Your task to perform on an android device: change the clock display to analog Image 0: 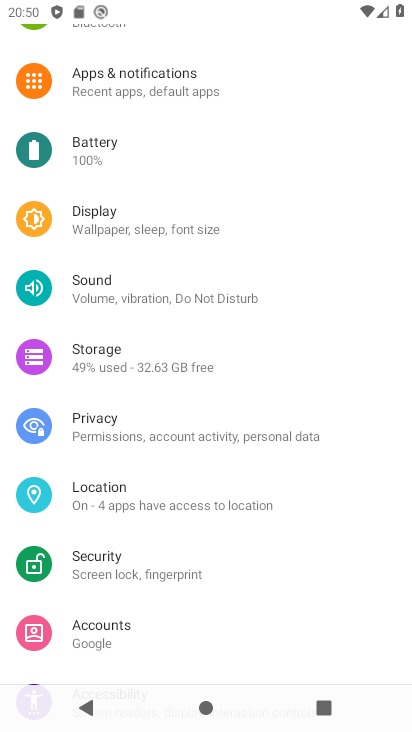
Step 0: press home button
Your task to perform on an android device: change the clock display to analog Image 1: 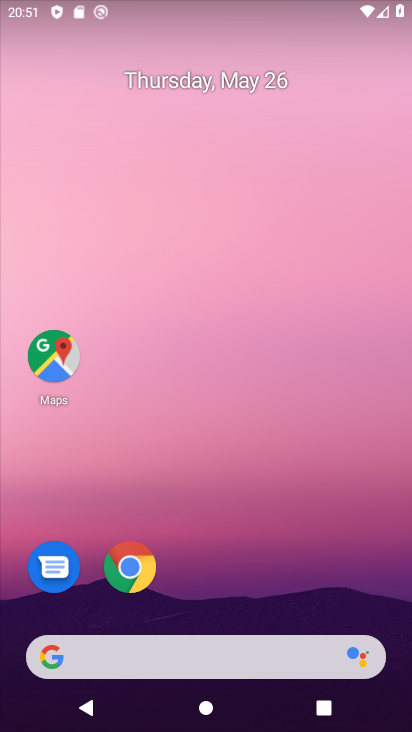
Step 1: drag from (241, 583) to (278, 272)
Your task to perform on an android device: change the clock display to analog Image 2: 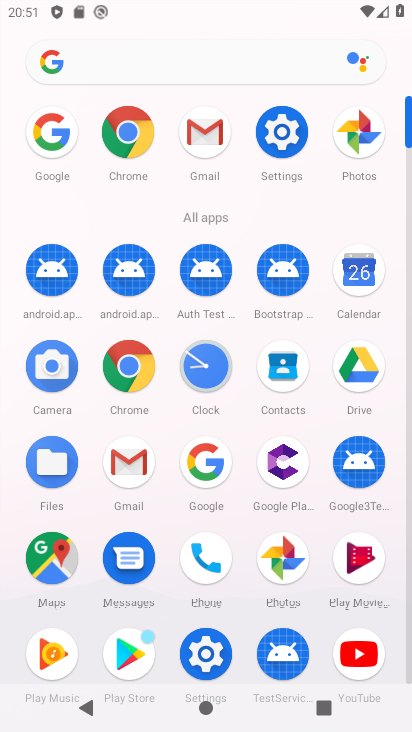
Step 2: click (214, 369)
Your task to perform on an android device: change the clock display to analog Image 3: 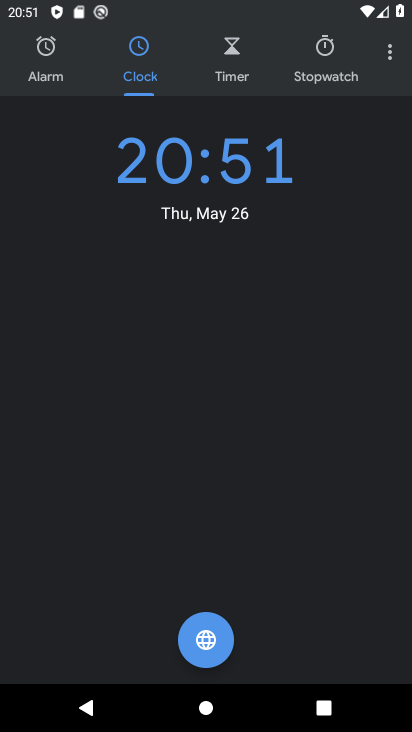
Step 3: click (386, 56)
Your task to perform on an android device: change the clock display to analog Image 4: 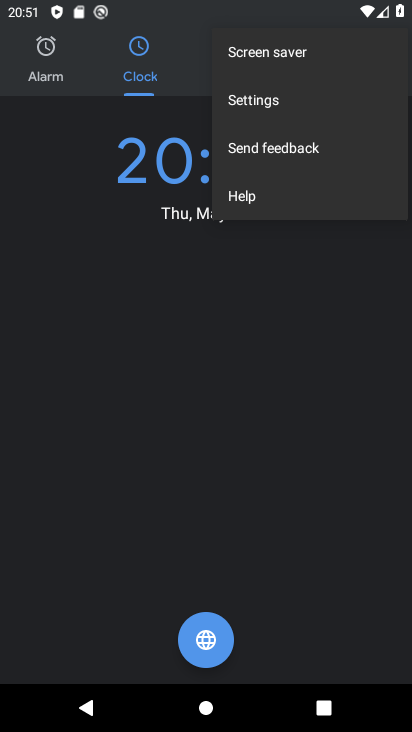
Step 4: click (263, 102)
Your task to perform on an android device: change the clock display to analog Image 5: 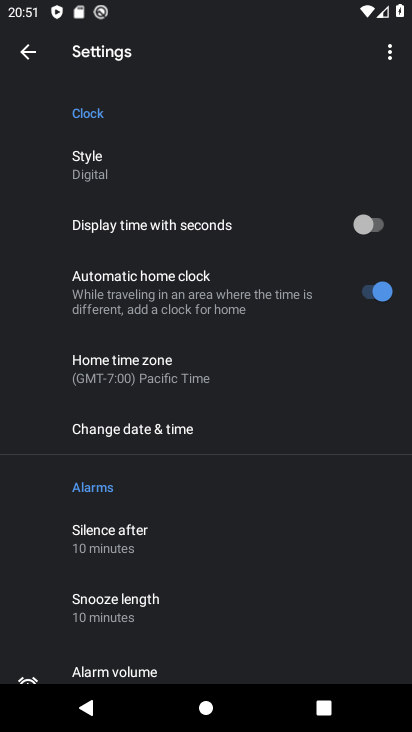
Step 5: click (119, 171)
Your task to perform on an android device: change the clock display to analog Image 6: 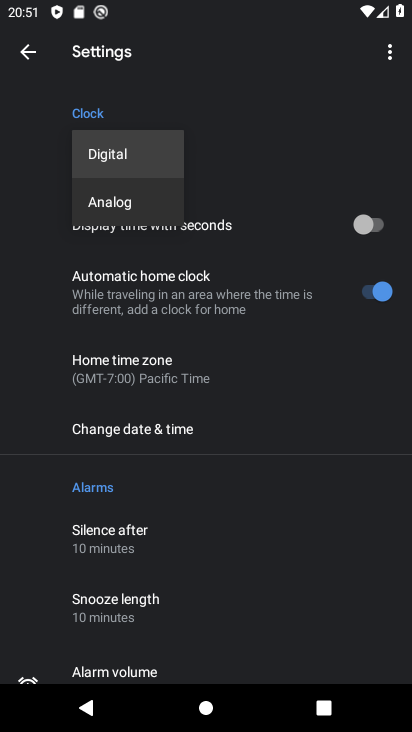
Step 6: click (112, 203)
Your task to perform on an android device: change the clock display to analog Image 7: 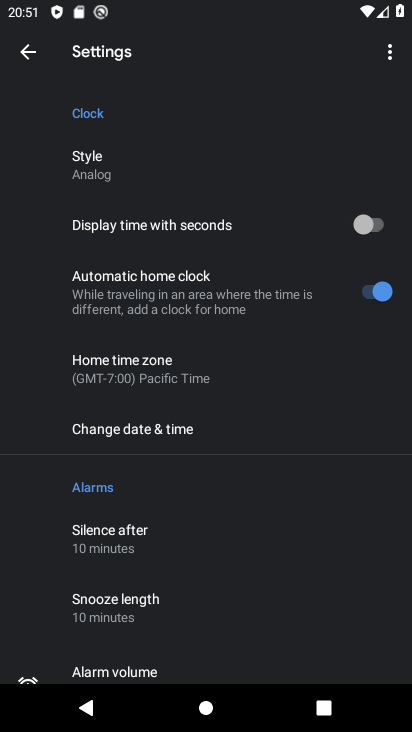
Step 7: task complete